Your task to perform on an android device: Go to Wikipedia Image 0: 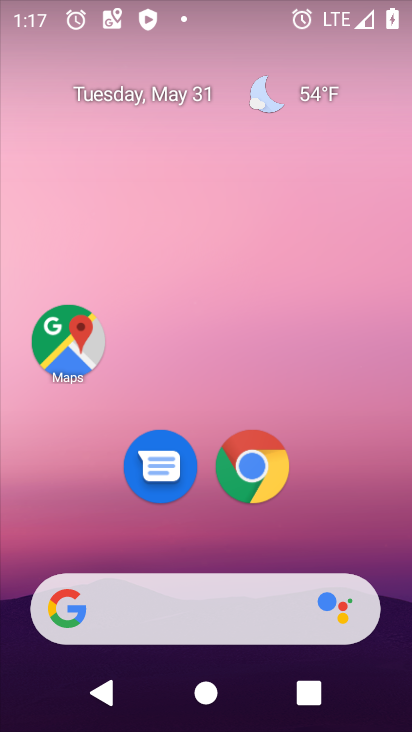
Step 0: drag from (195, 575) to (137, 8)
Your task to perform on an android device: Go to Wikipedia Image 1: 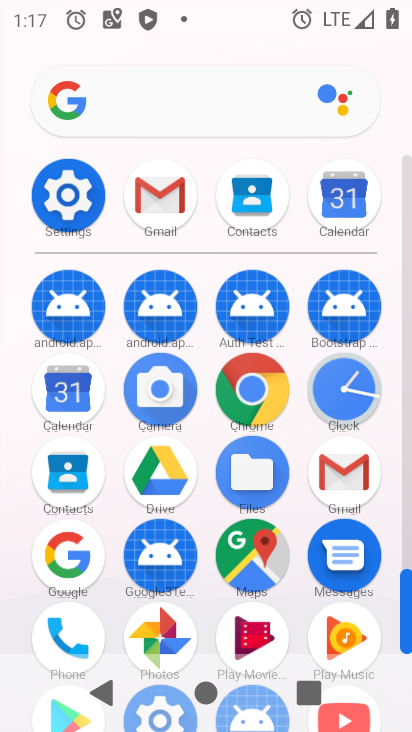
Step 1: click (265, 382)
Your task to perform on an android device: Go to Wikipedia Image 2: 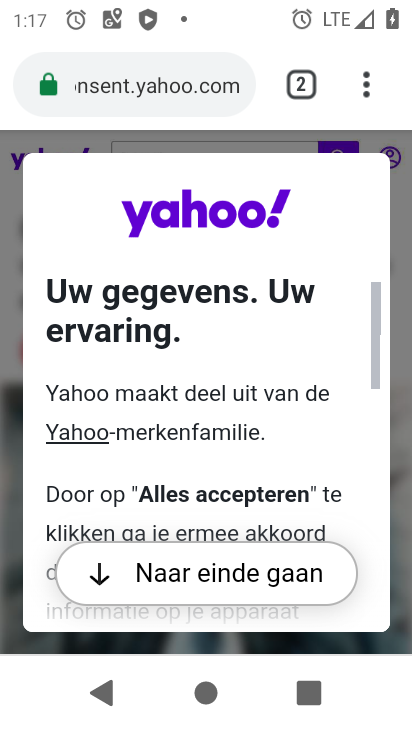
Step 2: click (192, 89)
Your task to perform on an android device: Go to Wikipedia Image 3: 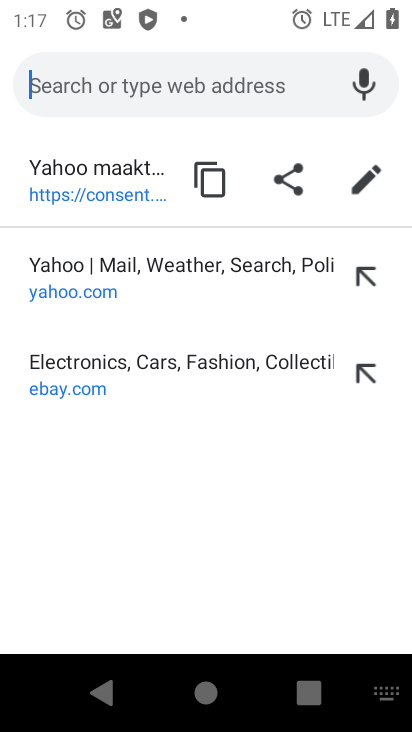
Step 3: type "wikipedia"
Your task to perform on an android device: Go to Wikipedia Image 4: 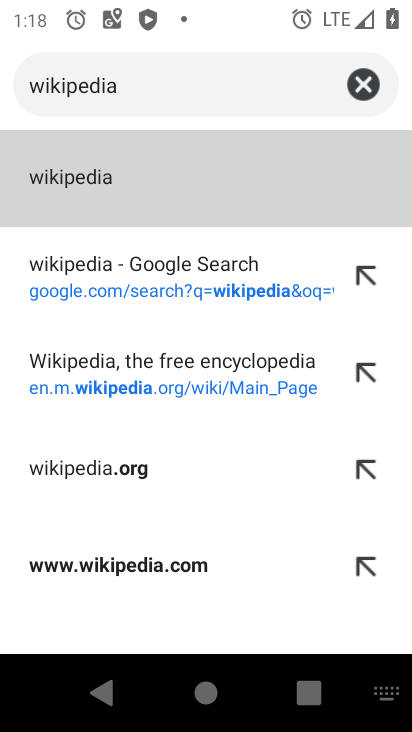
Step 4: click (177, 190)
Your task to perform on an android device: Go to Wikipedia Image 5: 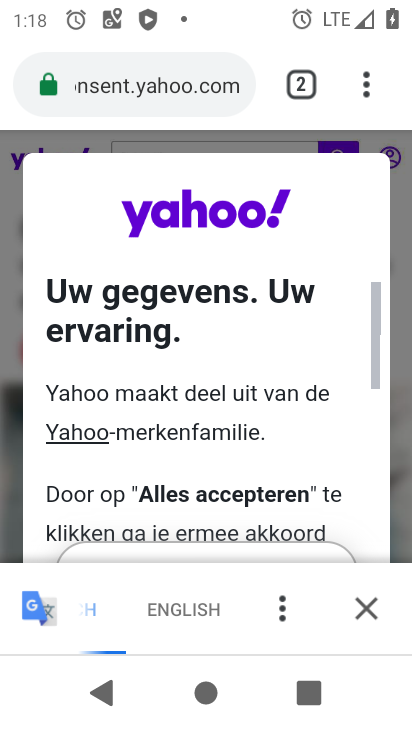
Step 5: click (362, 607)
Your task to perform on an android device: Go to Wikipedia Image 6: 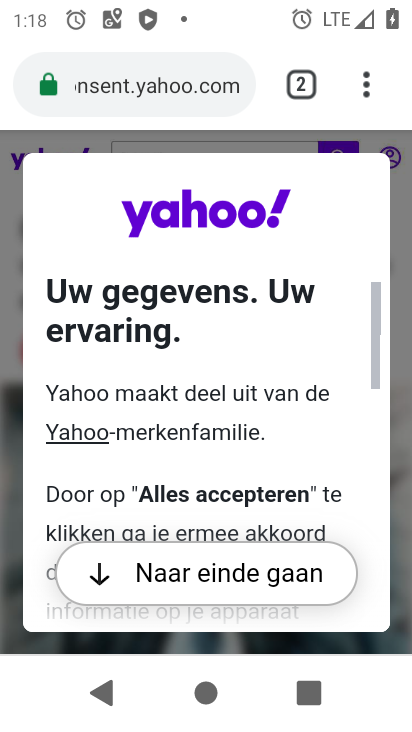
Step 6: click (266, 558)
Your task to perform on an android device: Go to Wikipedia Image 7: 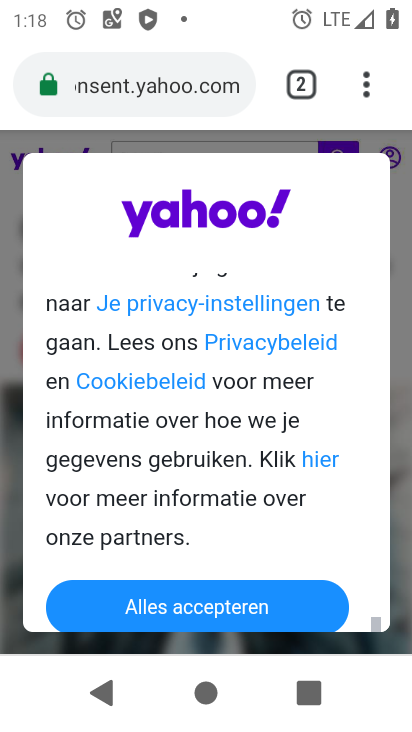
Step 7: click (246, 599)
Your task to perform on an android device: Go to Wikipedia Image 8: 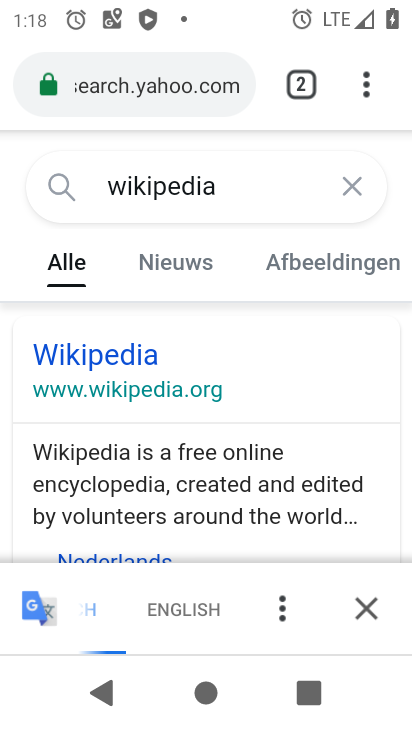
Step 8: click (122, 364)
Your task to perform on an android device: Go to Wikipedia Image 9: 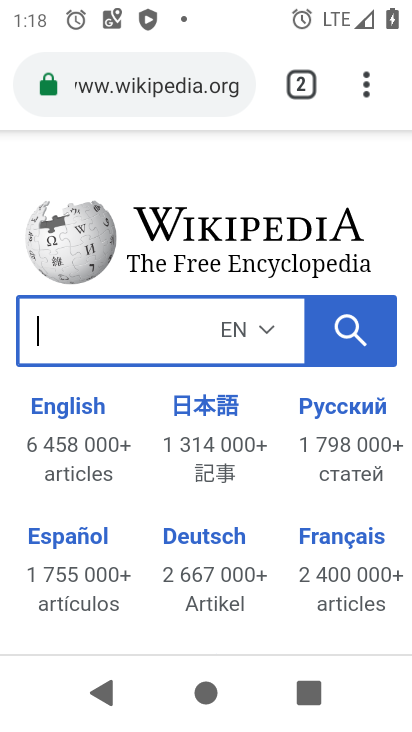
Step 9: task complete